Your task to perform on an android device: allow notifications from all sites in the chrome app Image 0: 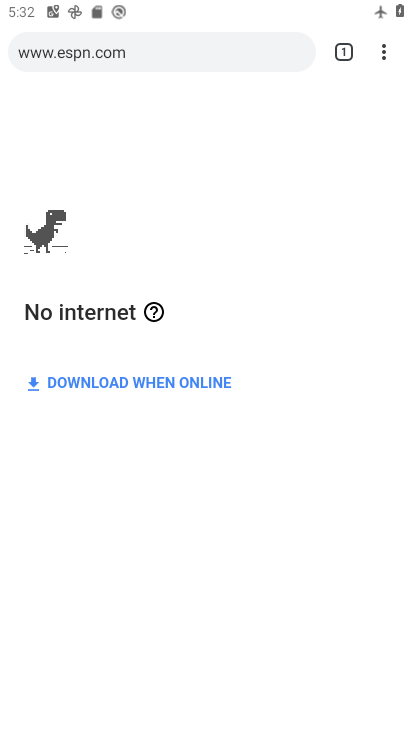
Step 0: press home button
Your task to perform on an android device: allow notifications from all sites in the chrome app Image 1: 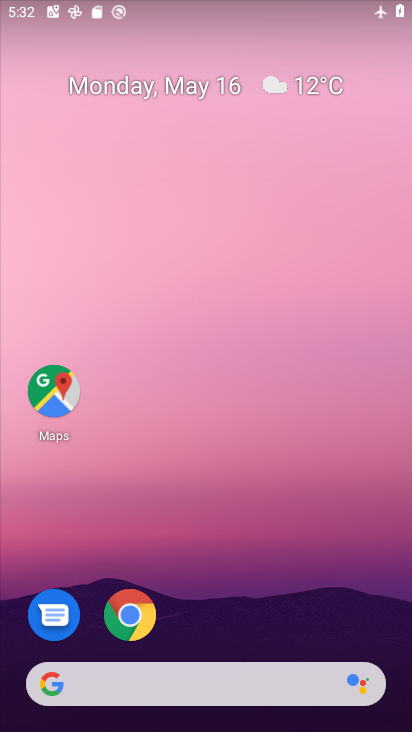
Step 1: click (142, 630)
Your task to perform on an android device: allow notifications from all sites in the chrome app Image 2: 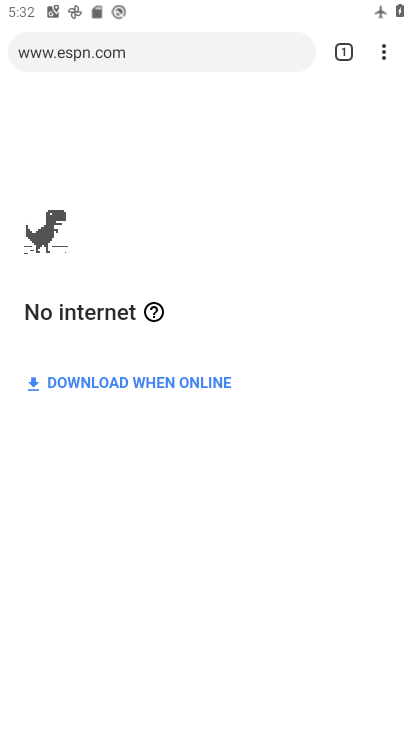
Step 2: click (398, 52)
Your task to perform on an android device: allow notifications from all sites in the chrome app Image 3: 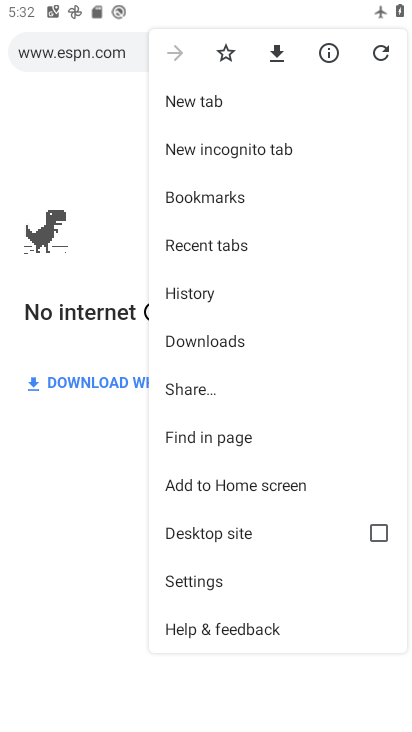
Step 3: click (204, 586)
Your task to perform on an android device: allow notifications from all sites in the chrome app Image 4: 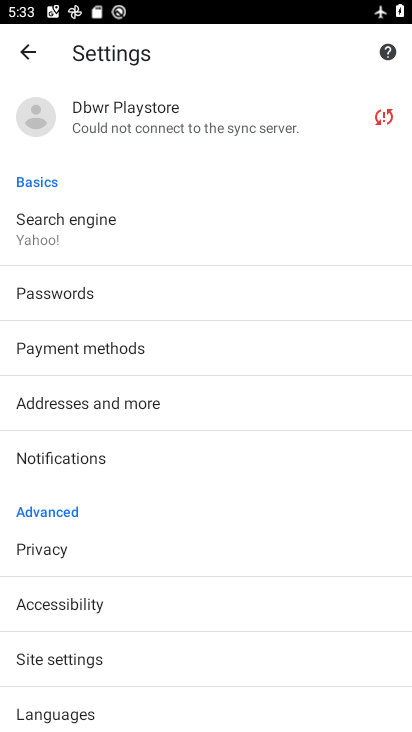
Step 4: click (70, 658)
Your task to perform on an android device: allow notifications from all sites in the chrome app Image 5: 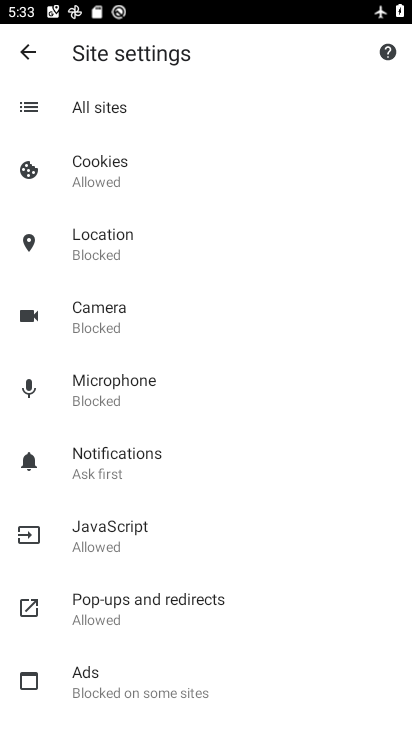
Step 5: drag from (118, 645) to (170, 519)
Your task to perform on an android device: allow notifications from all sites in the chrome app Image 6: 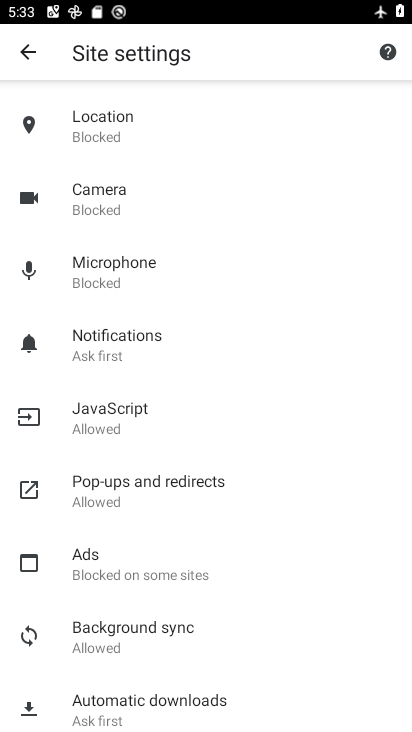
Step 6: drag from (211, 663) to (295, 483)
Your task to perform on an android device: allow notifications from all sites in the chrome app Image 7: 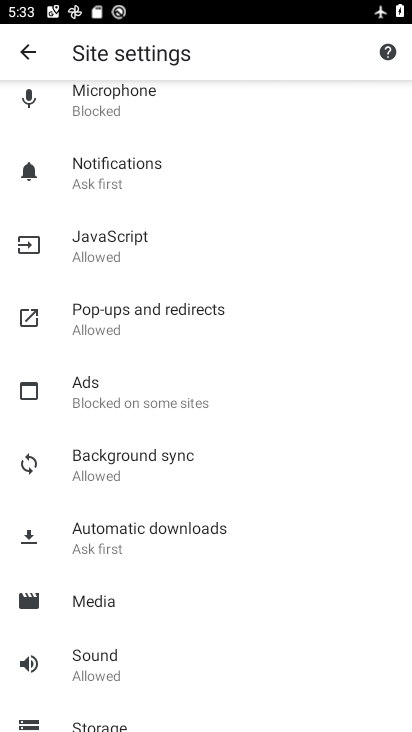
Step 7: drag from (264, 215) to (268, 511)
Your task to perform on an android device: allow notifications from all sites in the chrome app Image 8: 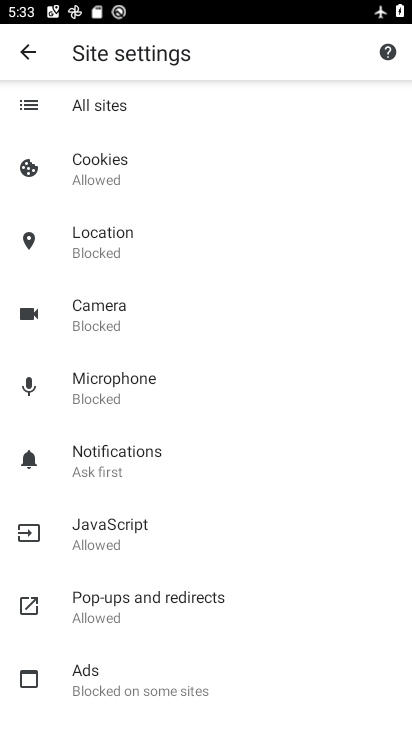
Step 8: click (117, 461)
Your task to perform on an android device: allow notifications from all sites in the chrome app Image 9: 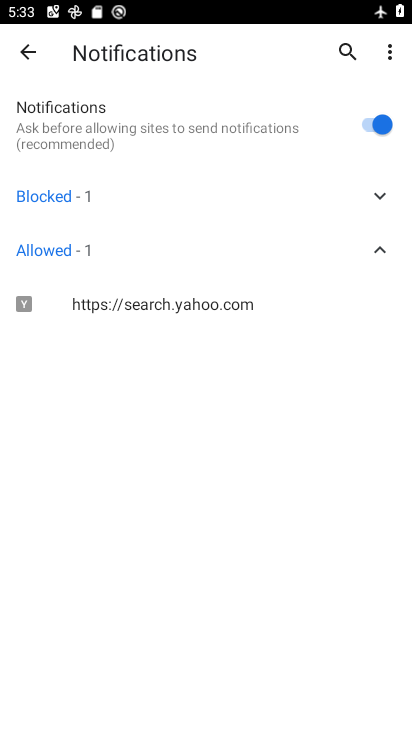
Step 9: task complete